Your task to perform on an android device: Go to sound settings Image 0: 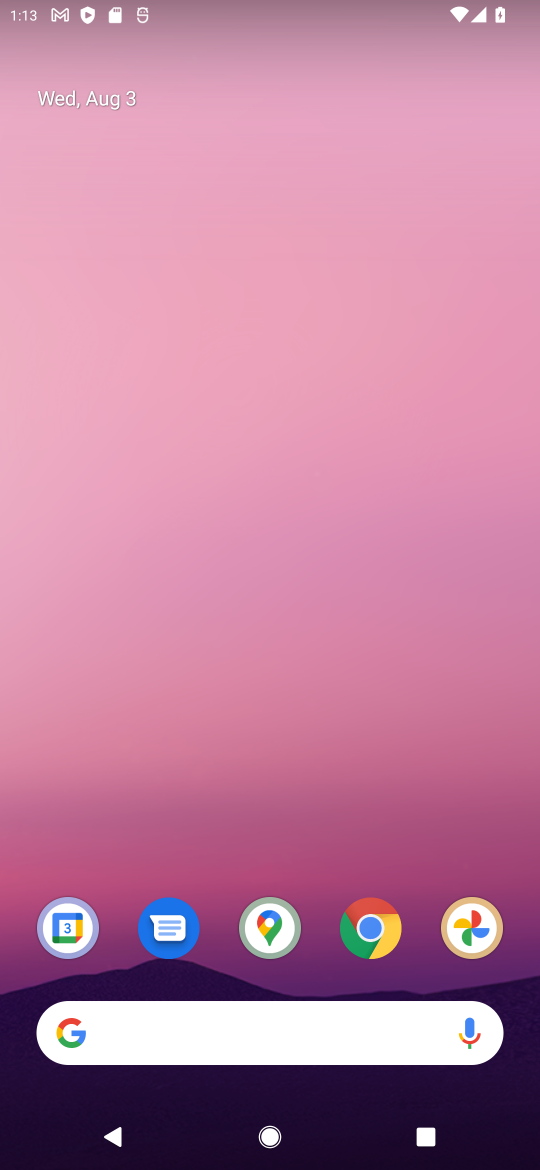
Step 0: drag from (534, 849) to (451, 338)
Your task to perform on an android device: Go to sound settings Image 1: 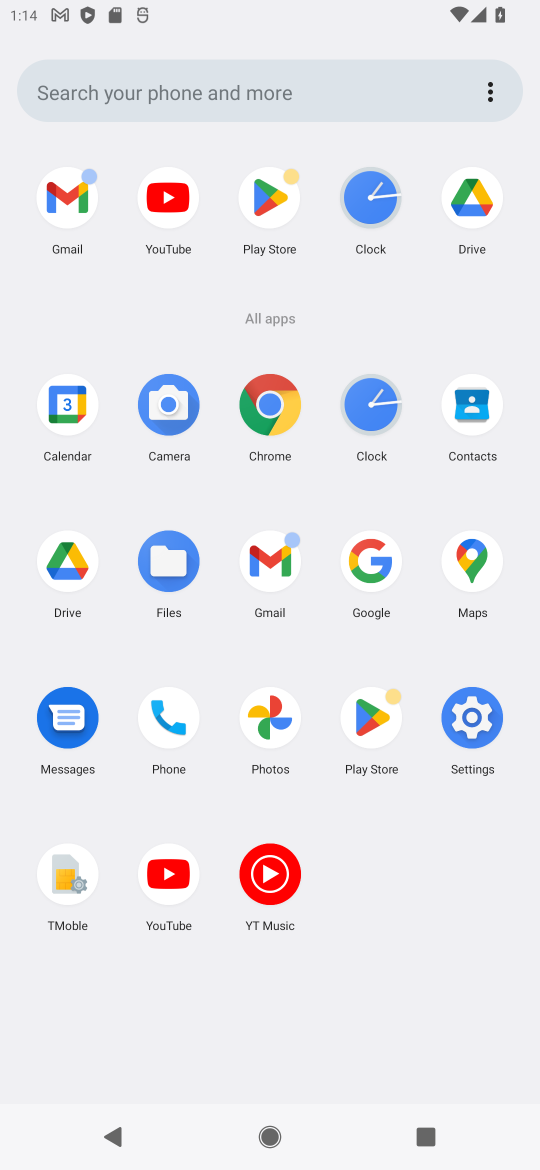
Step 1: click (486, 707)
Your task to perform on an android device: Go to sound settings Image 2: 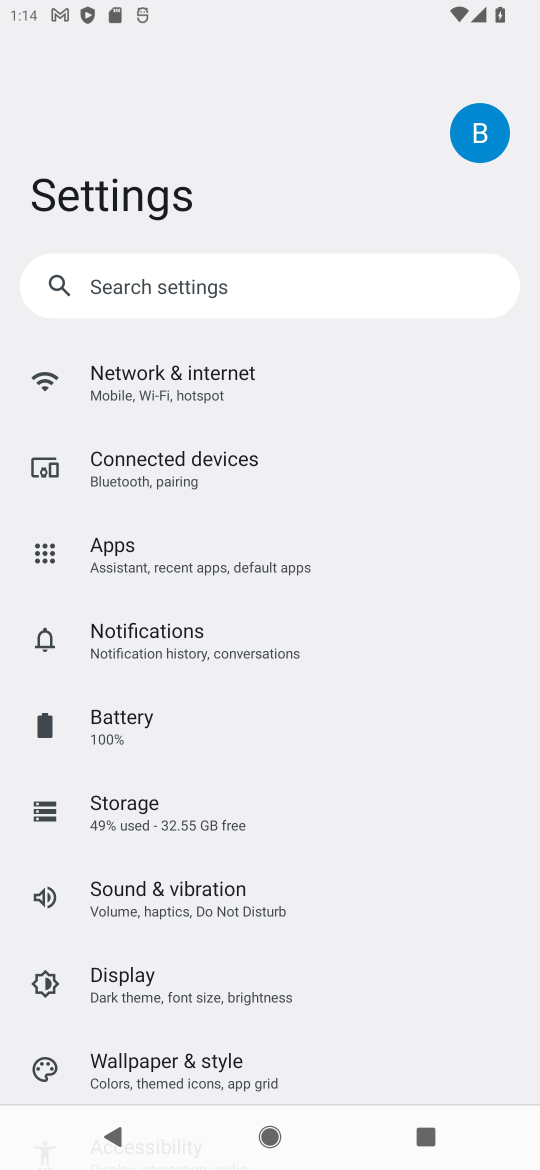
Step 2: click (153, 911)
Your task to perform on an android device: Go to sound settings Image 3: 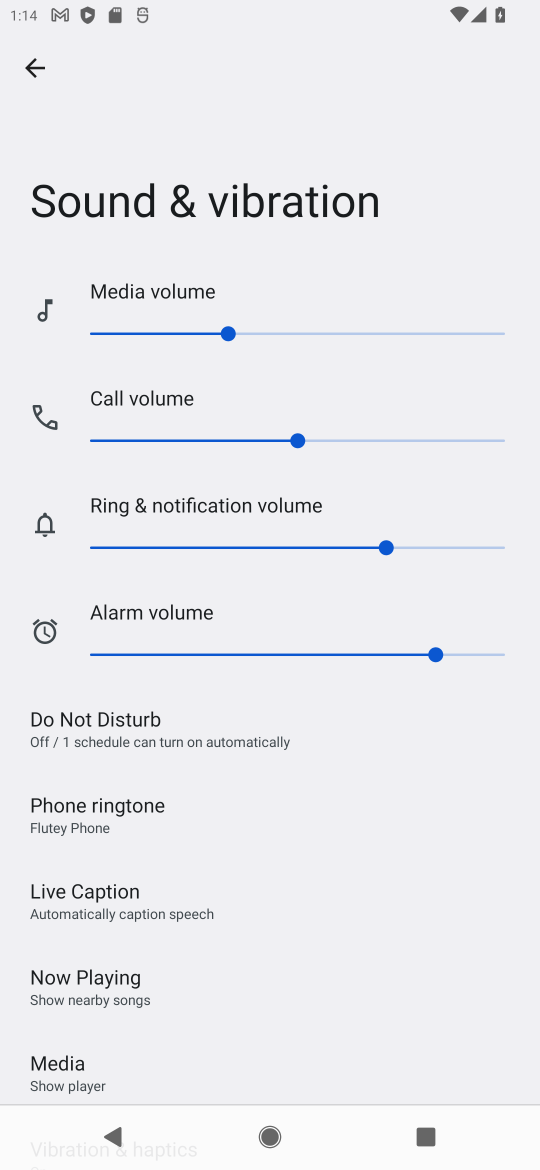
Step 3: task complete